Your task to perform on an android device: Open Yahoo.com Image 0: 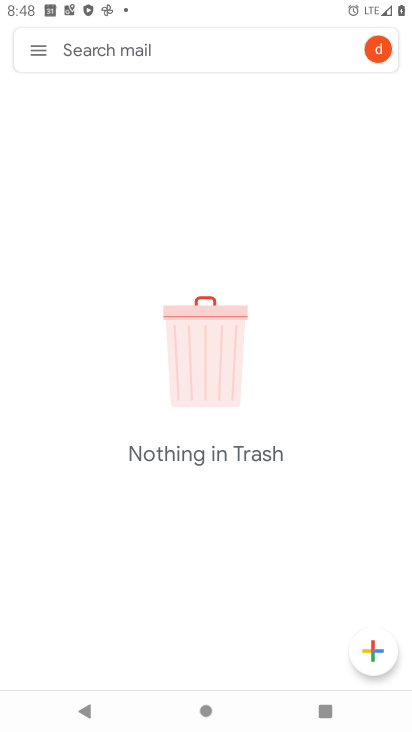
Step 0: press home button
Your task to perform on an android device: Open Yahoo.com Image 1: 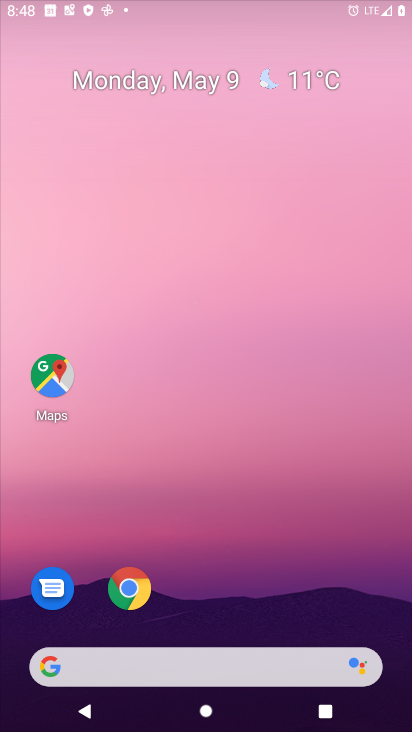
Step 1: drag from (345, 609) to (191, 30)
Your task to perform on an android device: Open Yahoo.com Image 2: 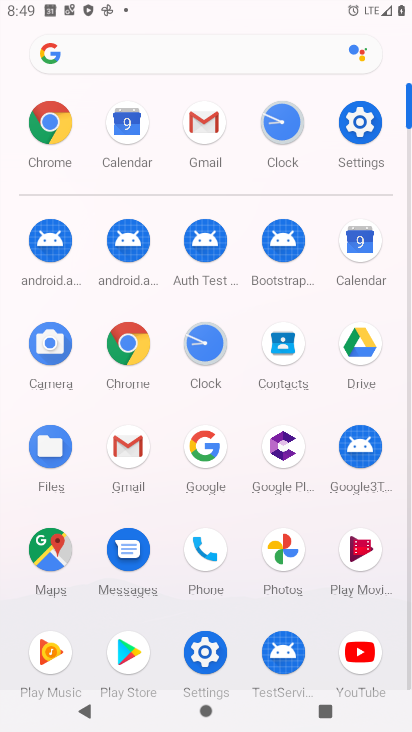
Step 2: click (133, 332)
Your task to perform on an android device: Open Yahoo.com Image 3: 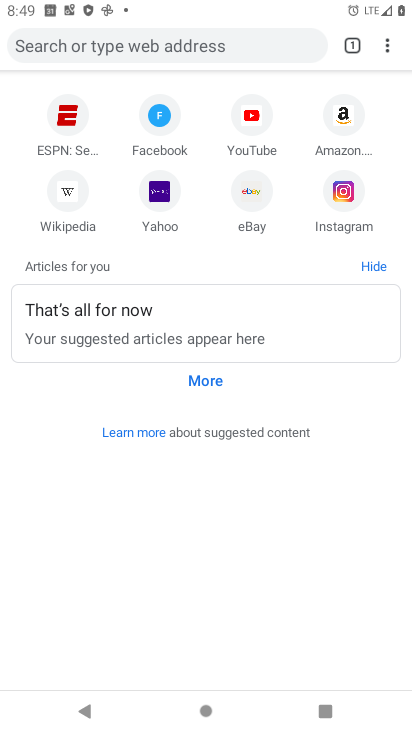
Step 3: click (166, 191)
Your task to perform on an android device: Open Yahoo.com Image 4: 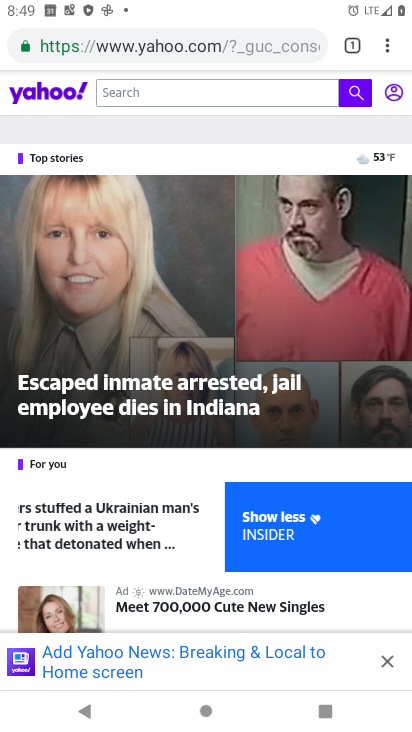
Step 4: task complete